Your task to perform on an android device: Go to internet settings Image 0: 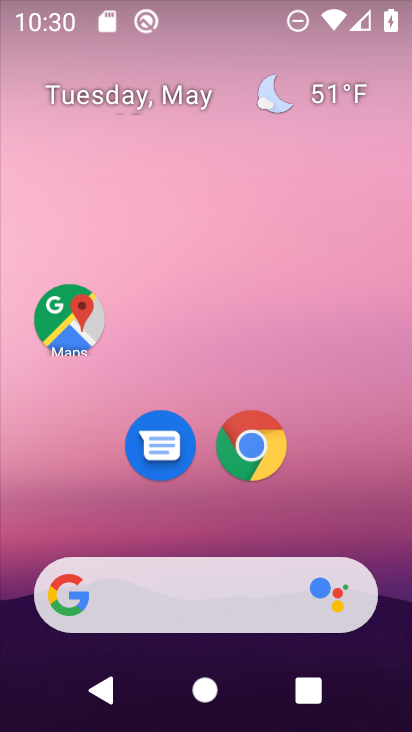
Step 0: drag from (187, 564) to (167, 80)
Your task to perform on an android device: Go to internet settings Image 1: 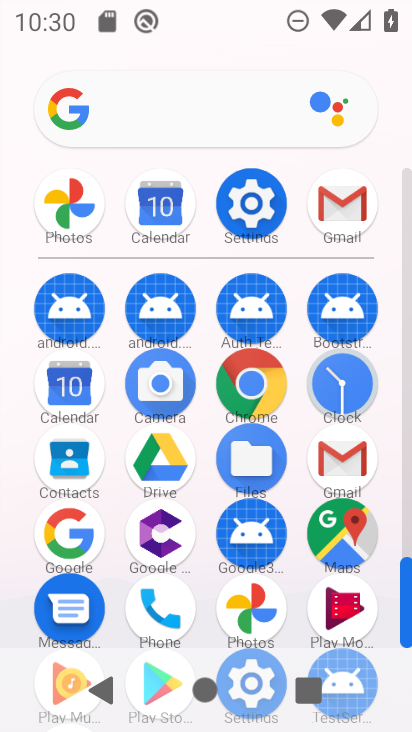
Step 1: click (247, 201)
Your task to perform on an android device: Go to internet settings Image 2: 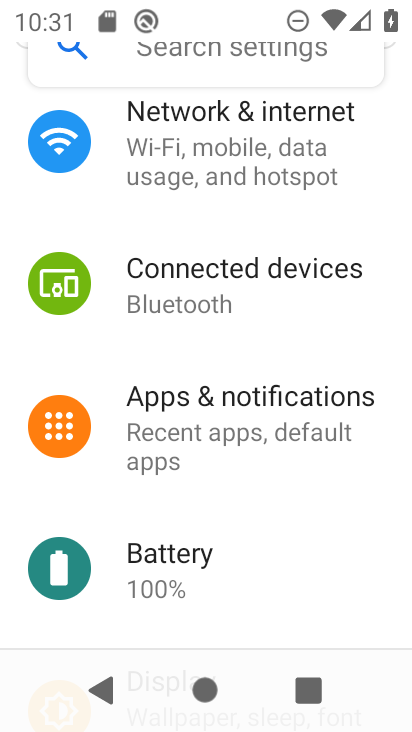
Step 2: click (182, 170)
Your task to perform on an android device: Go to internet settings Image 3: 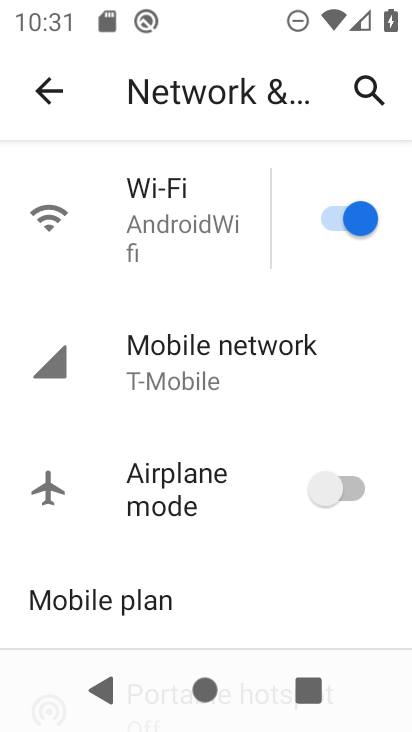
Step 3: task complete